Your task to perform on an android device: Open Chrome and go to the settings page Image 0: 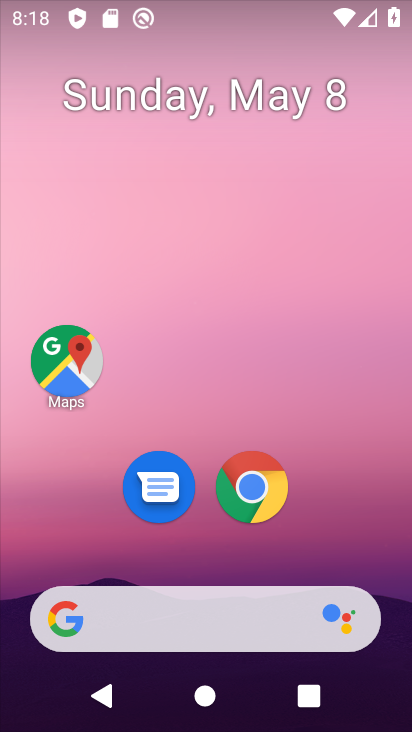
Step 0: click (254, 462)
Your task to perform on an android device: Open Chrome and go to the settings page Image 1: 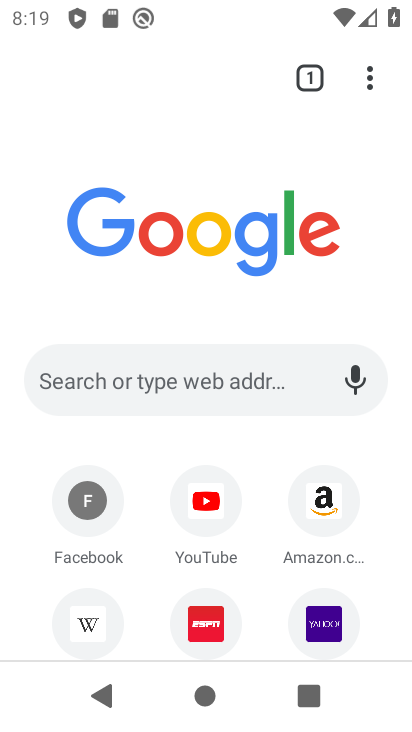
Step 1: task complete